Your task to perform on an android device: Open internet settings Image 0: 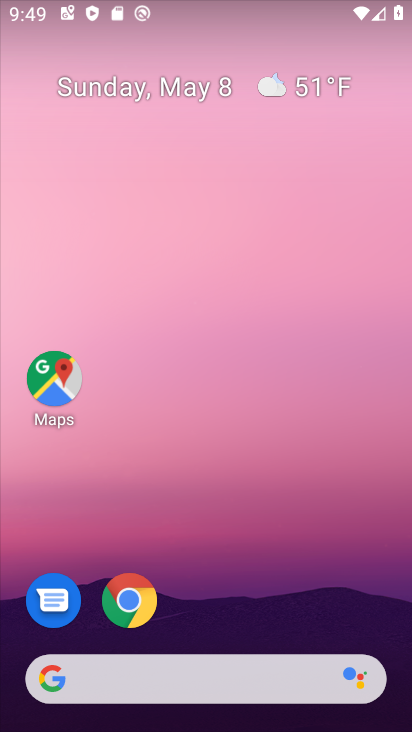
Step 0: drag from (320, 530) to (283, 5)
Your task to perform on an android device: Open internet settings Image 1: 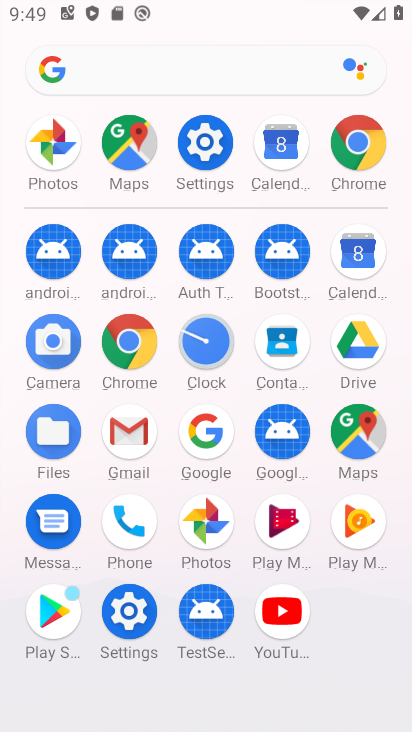
Step 1: click (199, 140)
Your task to perform on an android device: Open internet settings Image 2: 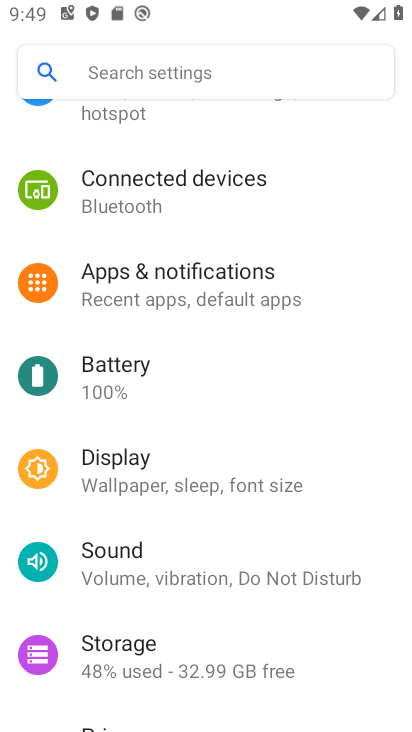
Step 2: drag from (198, 137) to (212, 609)
Your task to perform on an android device: Open internet settings Image 3: 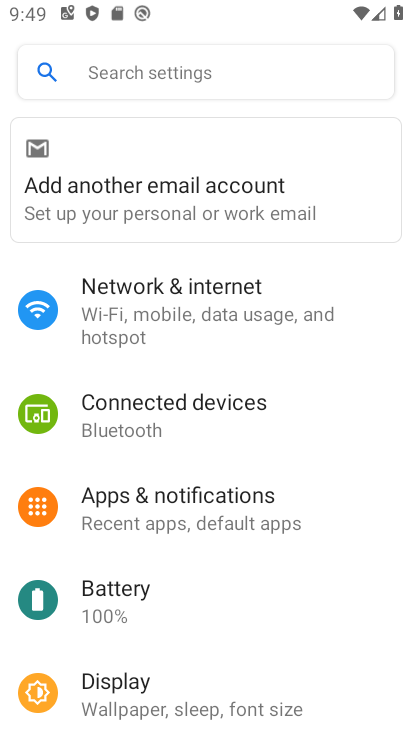
Step 3: click (185, 306)
Your task to perform on an android device: Open internet settings Image 4: 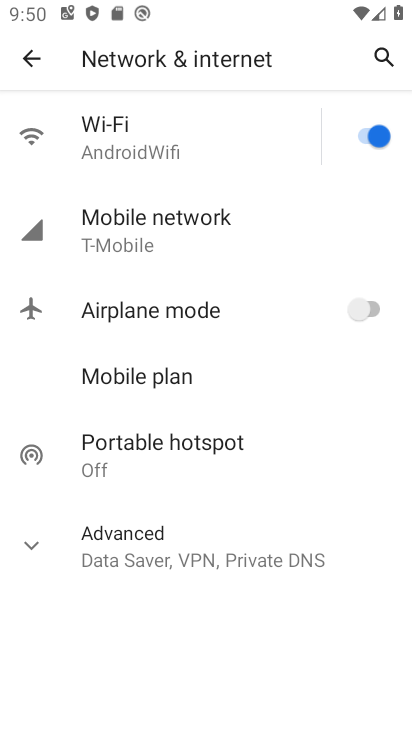
Step 4: click (47, 554)
Your task to perform on an android device: Open internet settings Image 5: 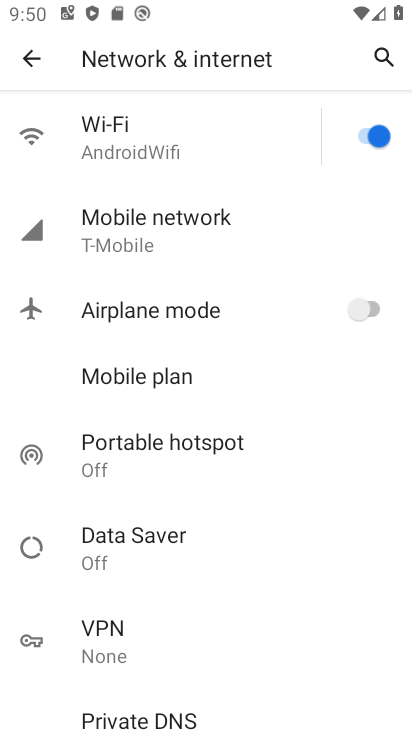
Step 5: task complete